Your task to perform on an android device: Go to notification settings Image 0: 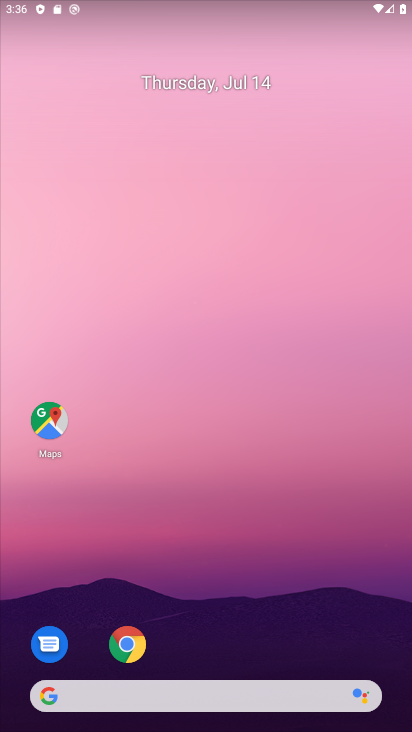
Step 0: drag from (239, 463) to (276, 17)
Your task to perform on an android device: Go to notification settings Image 1: 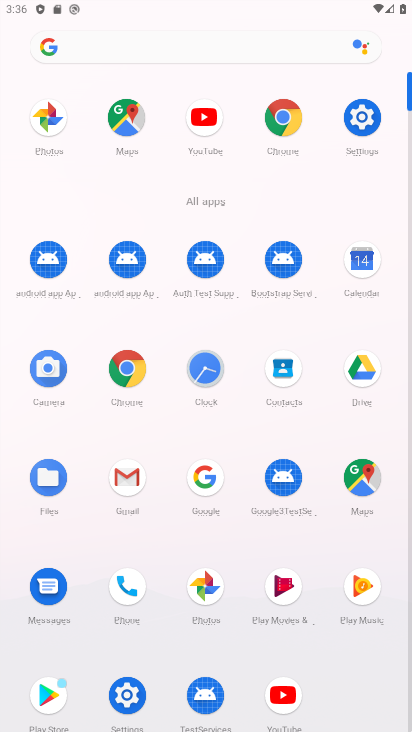
Step 1: click (355, 117)
Your task to perform on an android device: Go to notification settings Image 2: 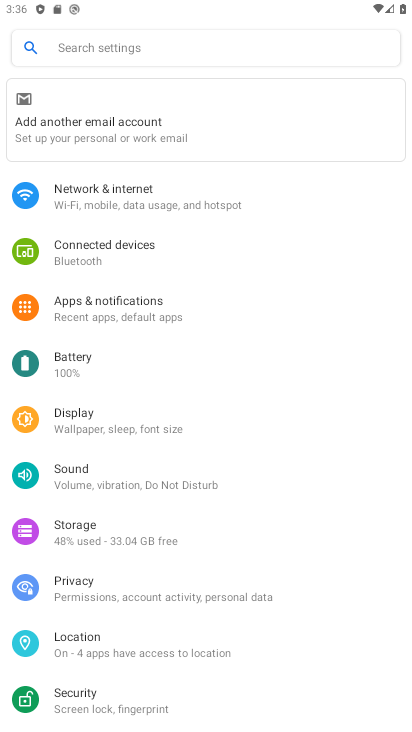
Step 2: click (89, 306)
Your task to perform on an android device: Go to notification settings Image 3: 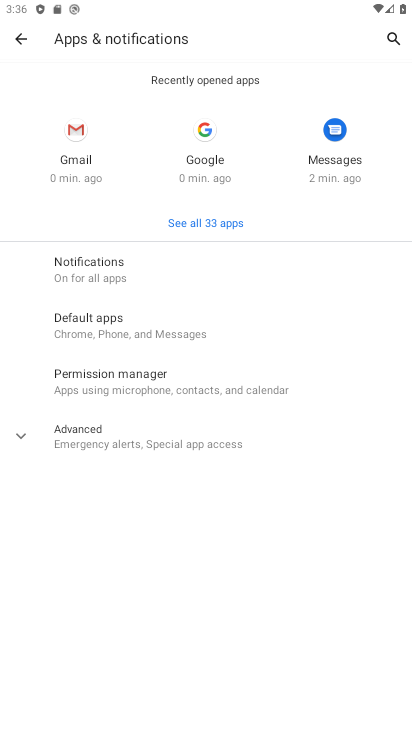
Step 3: task complete